Your task to perform on an android device: change alarm snooze length Image 0: 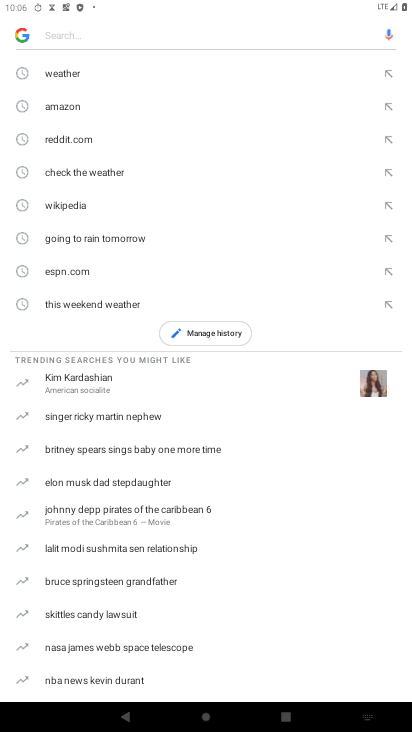
Step 0: press home button
Your task to perform on an android device: change alarm snooze length Image 1: 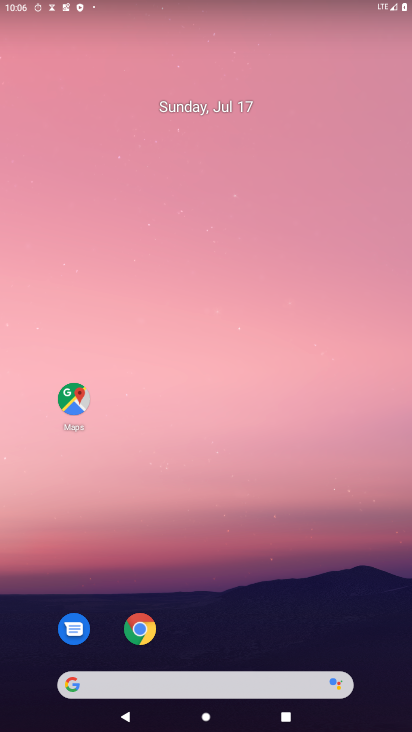
Step 1: drag from (237, 719) to (237, 51)
Your task to perform on an android device: change alarm snooze length Image 2: 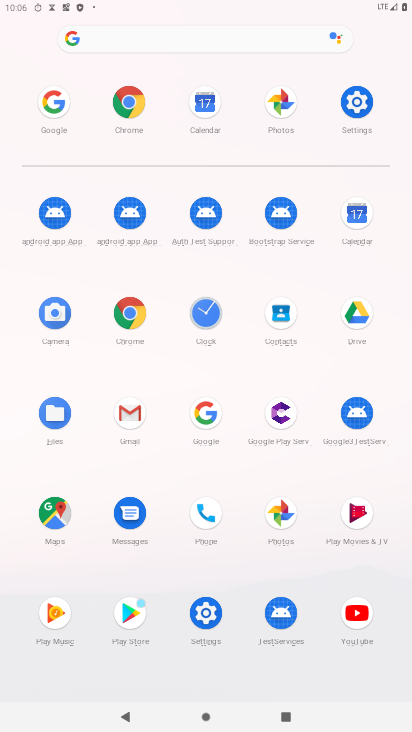
Step 2: click (205, 312)
Your task to perform on an android device: change alarm snooze length Image 3: 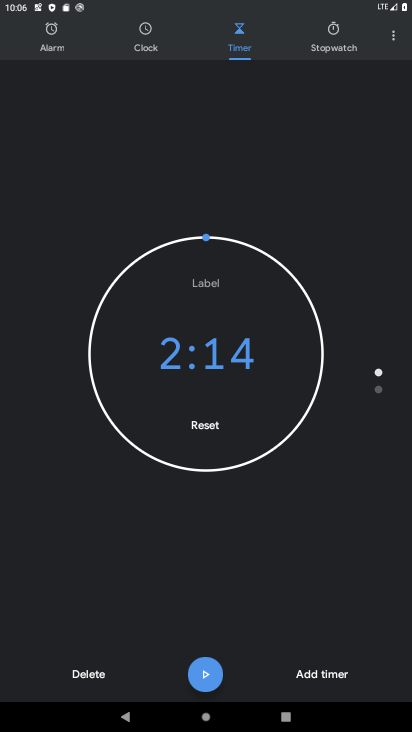
Step 3: click (392, 40)
Your task to perform on an android device: change alarm snooze length Image 4: 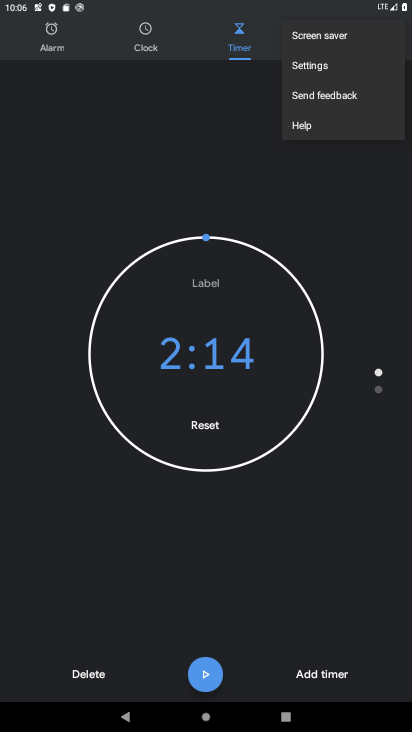
Step 4: click (315, 61)
Your task to perform on an android device: change alarm snooze length Image 5: 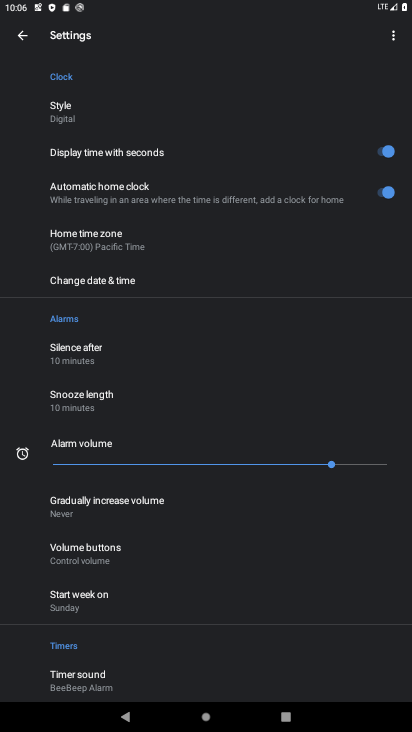
Step 5: click (100, 391)
Your task to perform on an android device: change alarm snooze length Image 6: 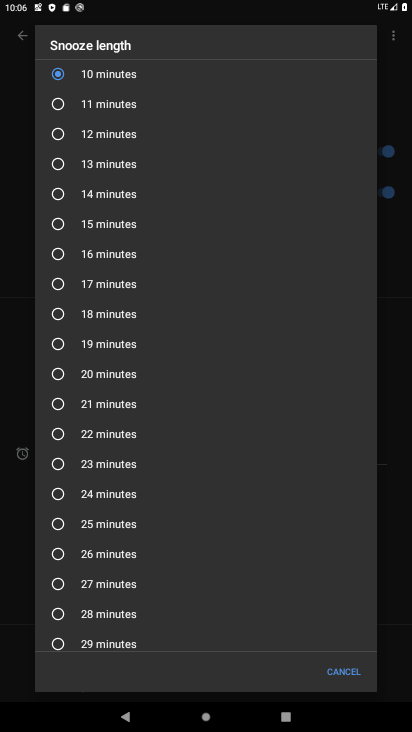
Step 6: click (57, 439)
Your task to perform on an android device: change alarm snooze length Image 7: 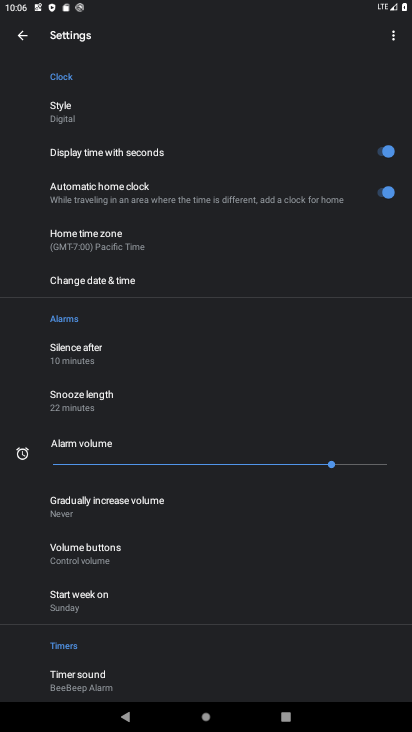
Step 7: task complete